Your task to perform on an android device: set the stopwatch Image 0: 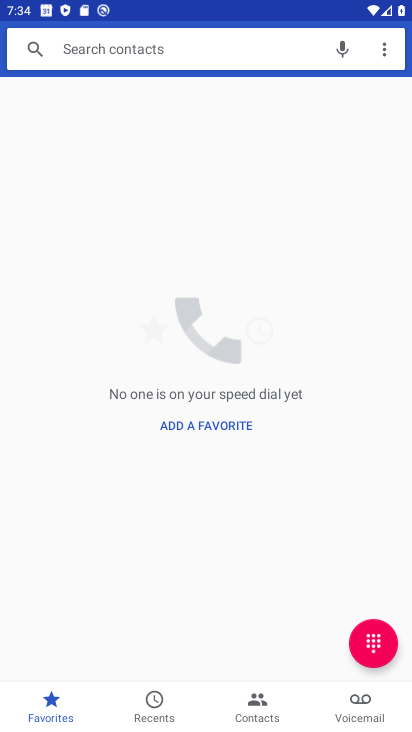
Step 0: press home button
Your task to perform on an android device: set the stopwatch Image 1: 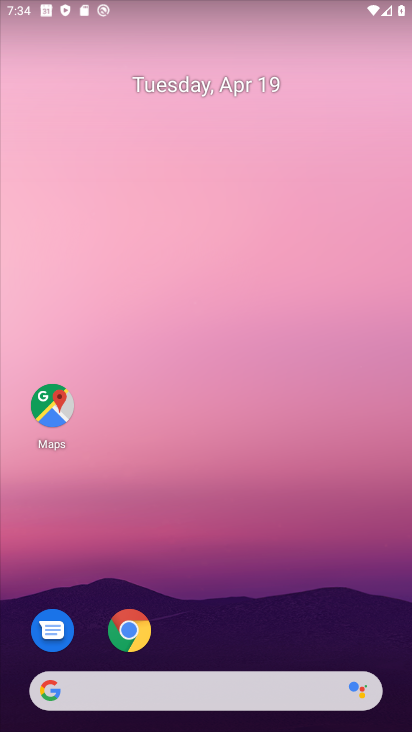
Step 1: drag from (228, 653) to (202, 61)
Your task to perform on an android device: set the stopwatch Image 2: 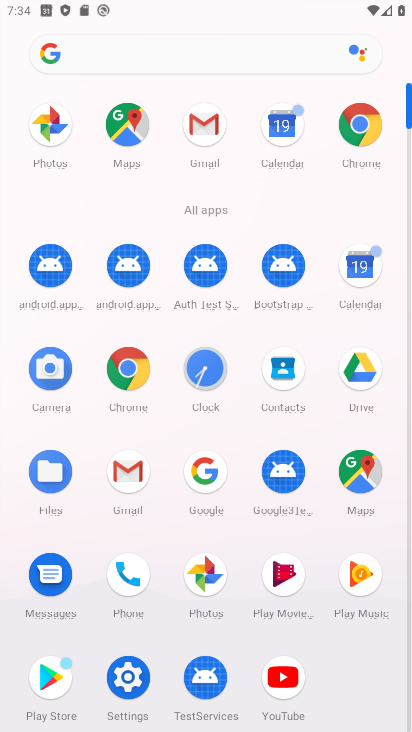
Step 2: click (201, 369)
Your task to perform on an android device: set the stopwatch Image 3: 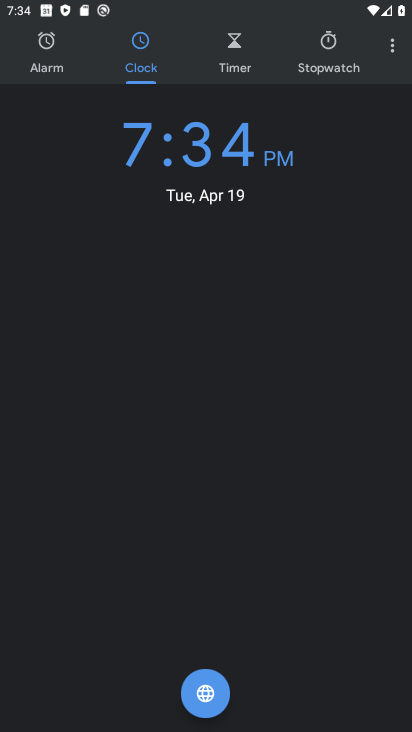
Step 3: click (314, 46)
Your task to perform on an android device: set the stopwatch Image 4: 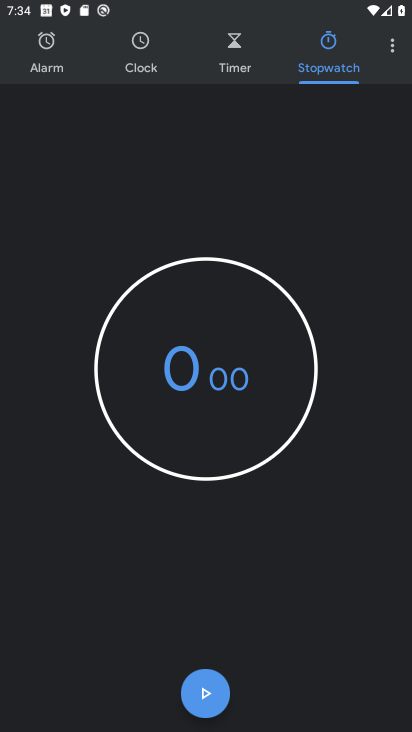
Step 4: click (200, 698)
Your task to perform on an android device: set the stopwatch Image 5: 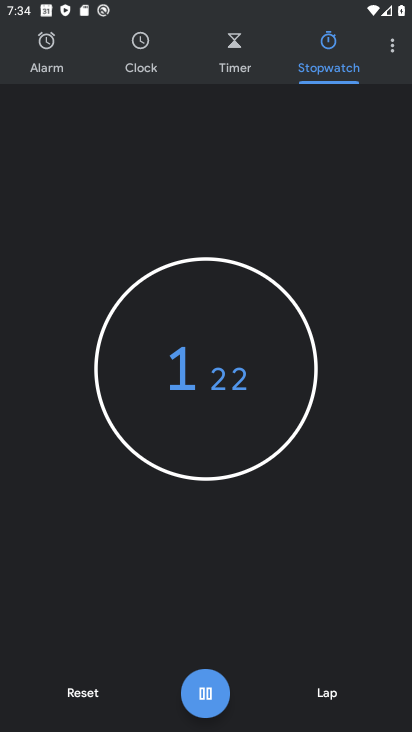
Step 5: click (200, 698)
Your task to perform on an android device: set the stopwatch Image 6: 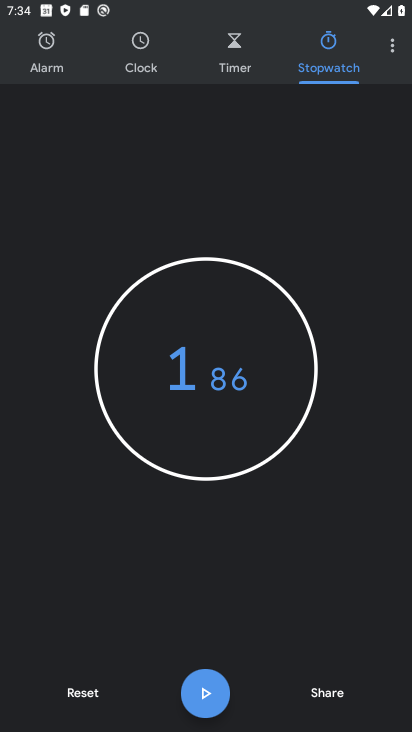
Step 6: click (200, 698)
Your task to perform on an android device: set the stopwatch Image 7: 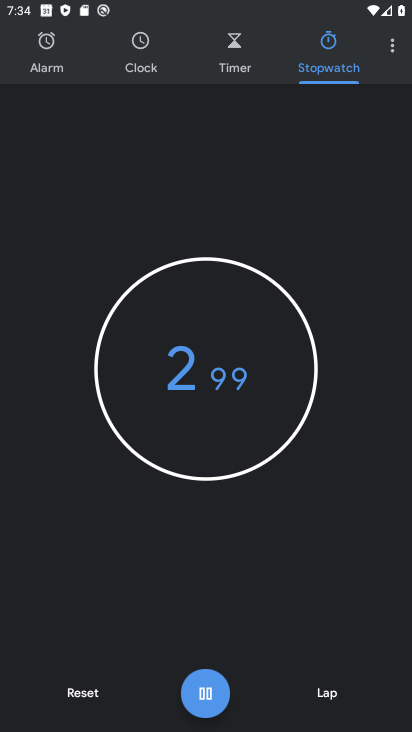
Step 7: click (200, 698)
Your task to perform on an android device: set the stopwatch Image 8: 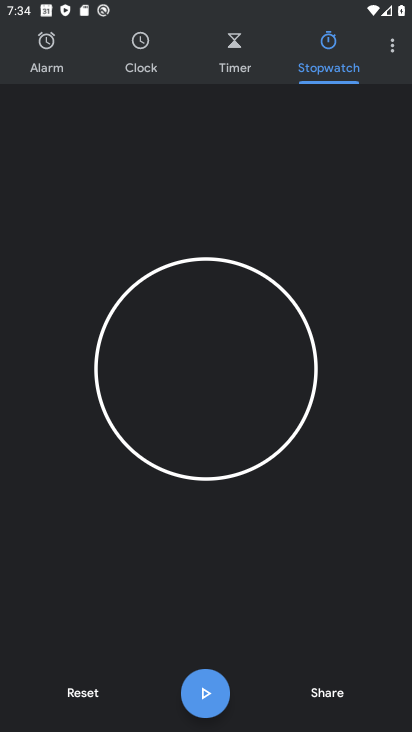
Step 8: task complete